Your task to perform on an android device: set the timer Image 0: 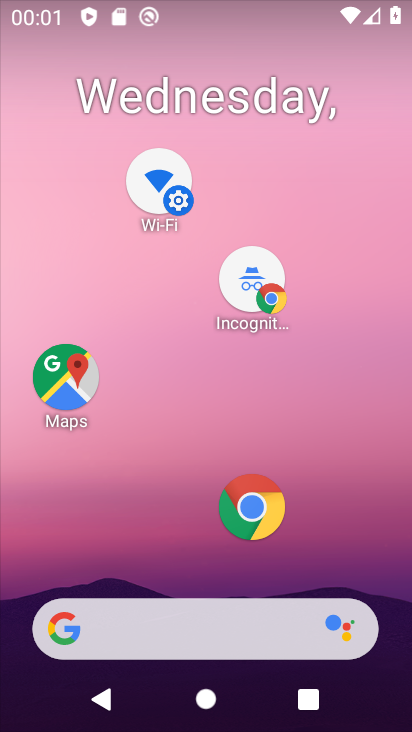
Step 0: drag from (67, 488) to (209, 179)
Your task to perform on an android device: set the timer Image 1: 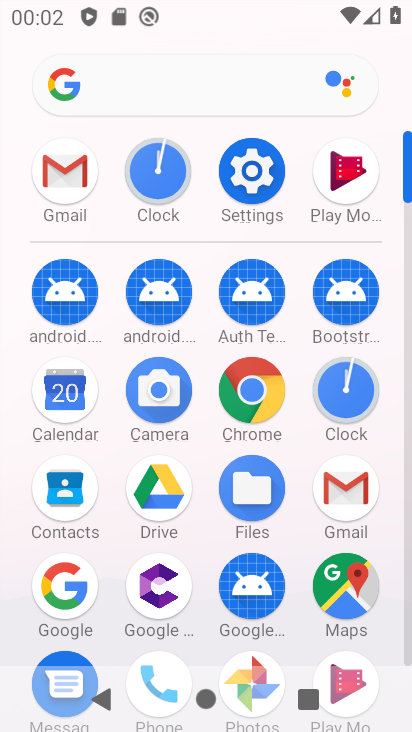
Step 1: click (255, 187)
Your task to perform on an android device: set the timer Image 2: 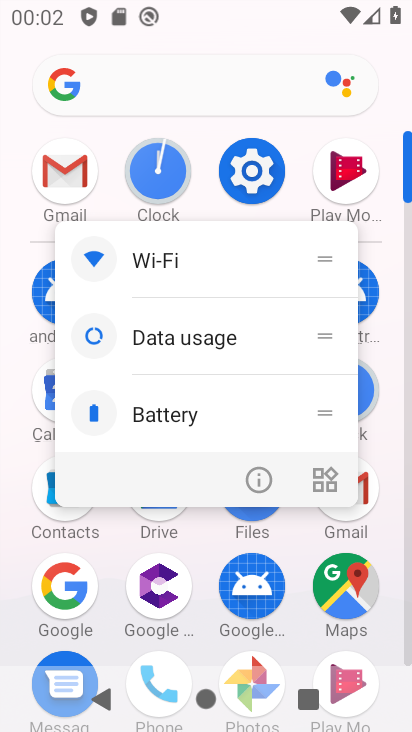
Step 2: click (372, 397)
Your task to perform on an android device: set the timer Image 3: 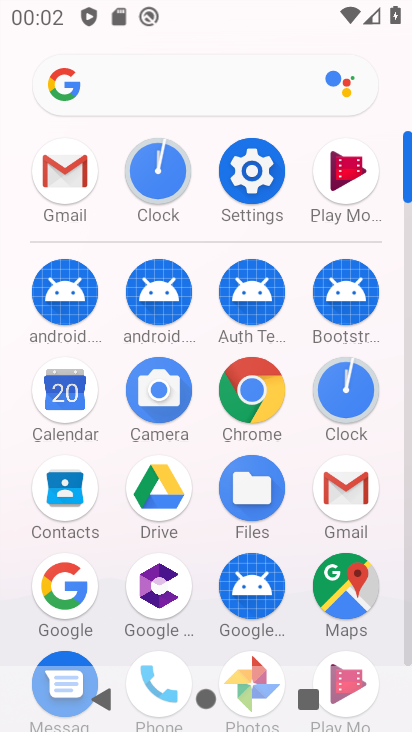
Step 3: click (350, 403)
Your task to perform on an android device: set the timer Image 4: 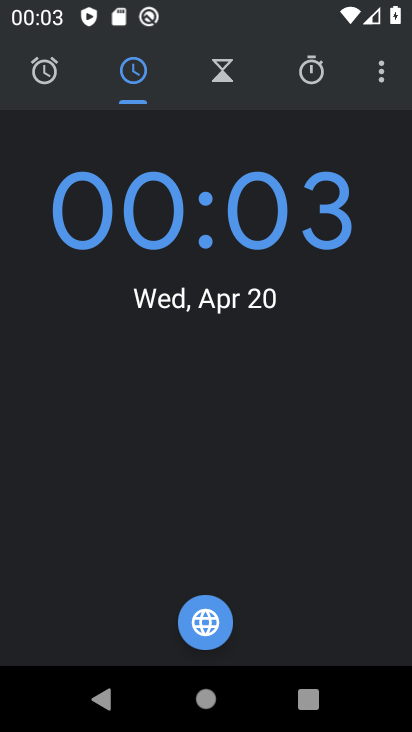
Step 4: click (317, 78)
Your task to perform on an android device: set the timer Image 5: 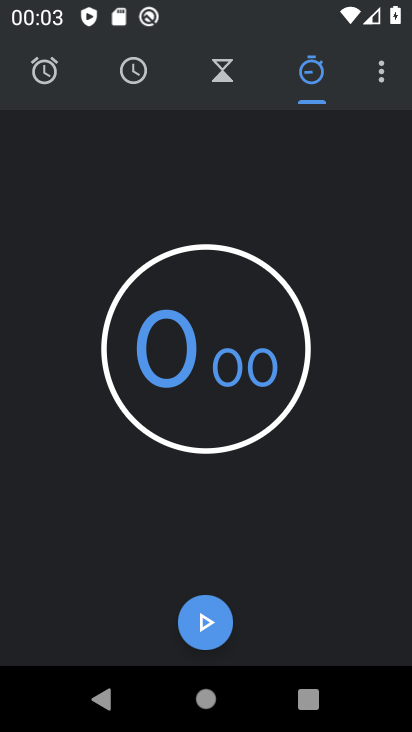
Step 5: click (217, 71)
Your task to perform on an android device: set the timer Image 6: 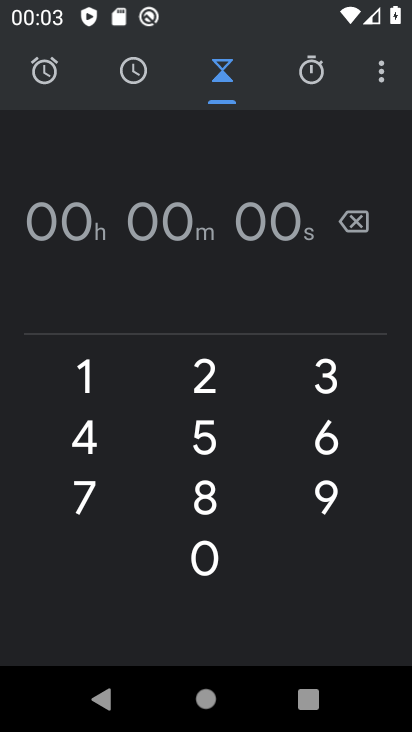
Step 6: click (188, 568)
Your task to perform on an android device: set the timer Image 7: 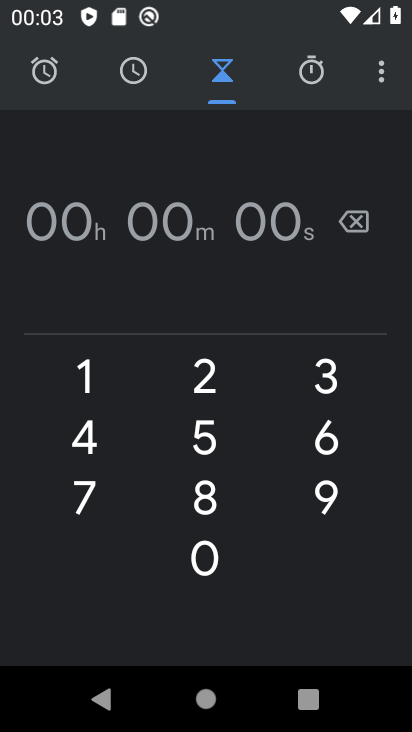
Step 7: click (206, 507)
Your task to perform on an android device: set the timer Image 8: 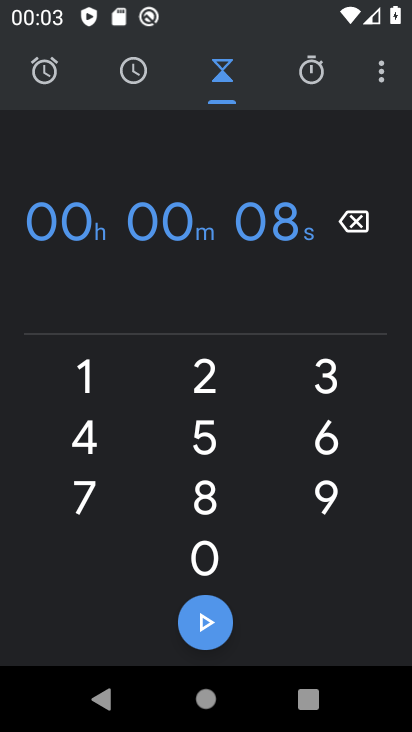
Step 8: click (327, 440)
Your task to perform on an android device: set the timer Image 9: 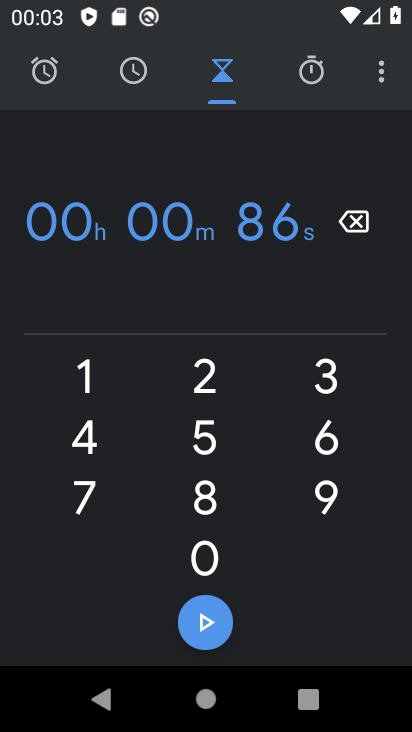
Step 9: click (208, 371)
Your task to perform on an android device: set the timer Image 10: 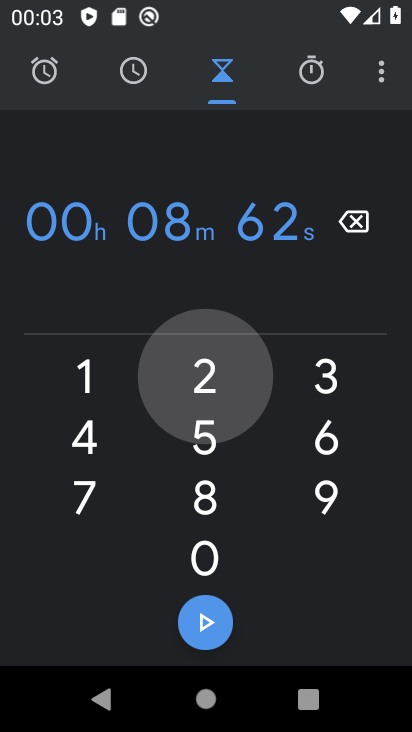
Step 10: click (99, 467)
Your task to perform on an android device: set the timer Image 11: 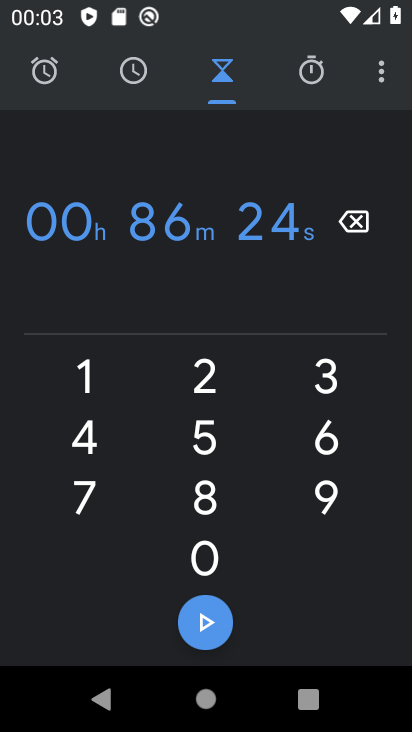
Step 11: click (336, 501)
Your task to perform on an android device: set the timer Image 12: 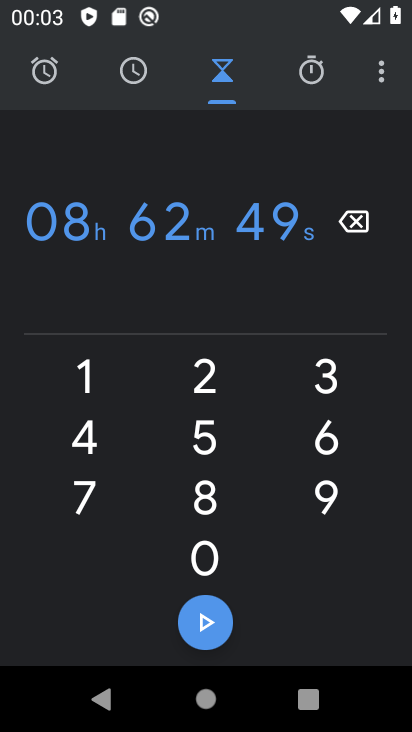
Step 12: click (207, 630)
Your task to perform on an android device: set the timer Image 13: 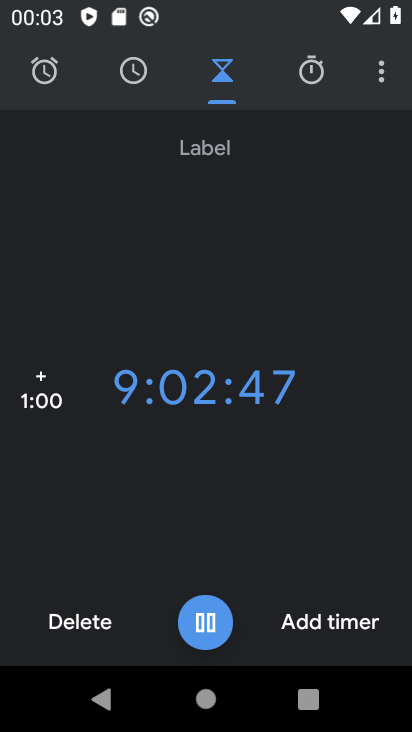
Step 13: task complete